Your task to perform on an android device: Open a new incognito window in Chrome Image 0: 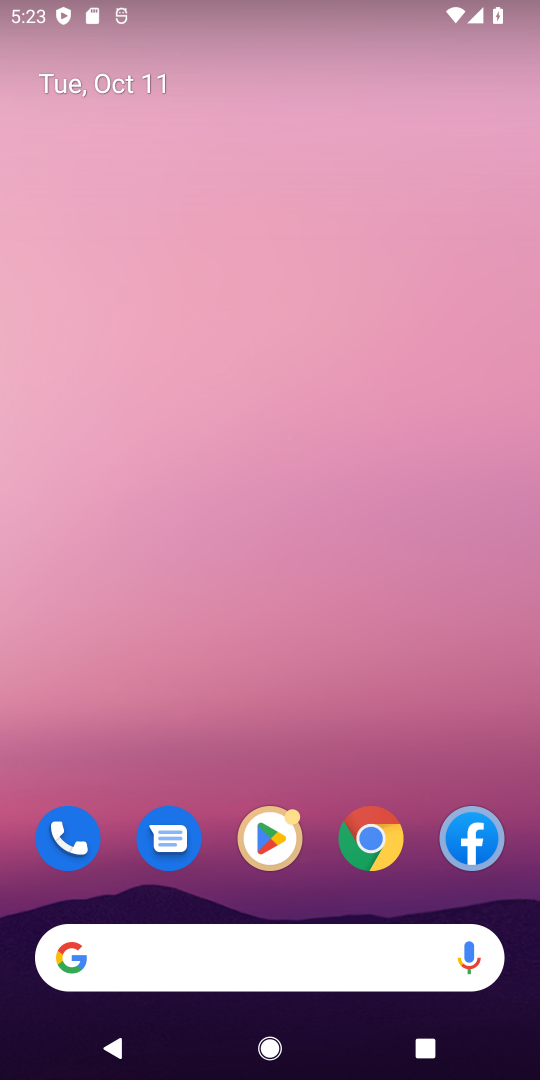
Step 0: click (375, 839)
Your task to perform on an android device: Open a new incognito window in Chrome Image 1: 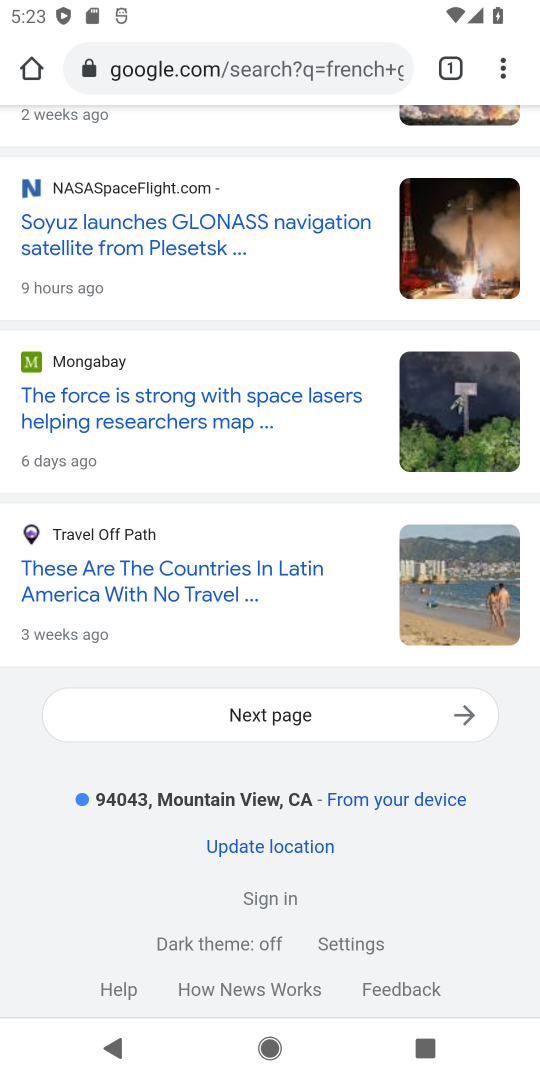
Step 1: click (503, 69)
Your task to perform on an android device: Open a new incognito window in Chrome Image 2: 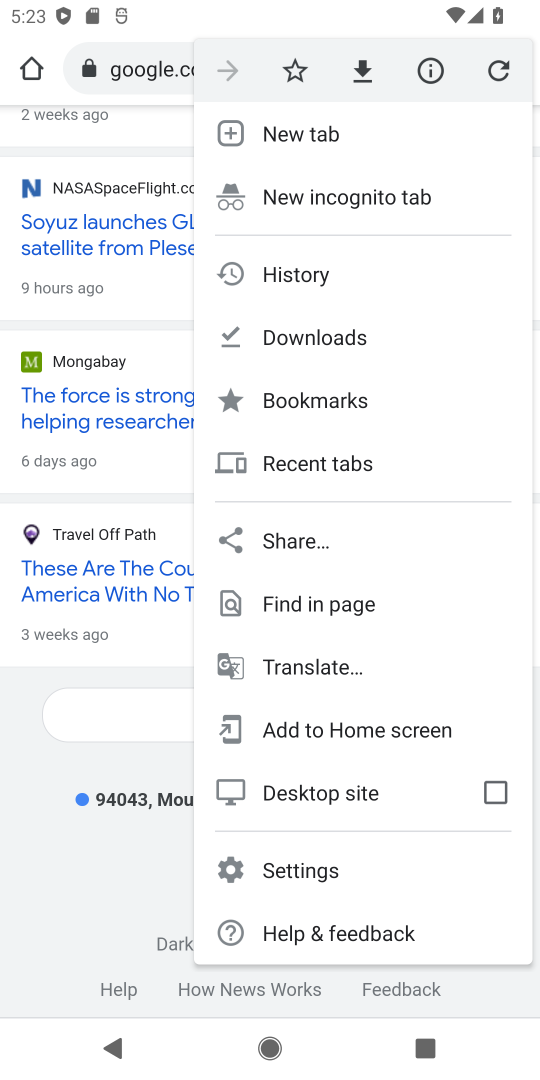
Step 2: click (380, 199)
Your task to perform on an android device: Open a new incognito window in Chrome Image 3: 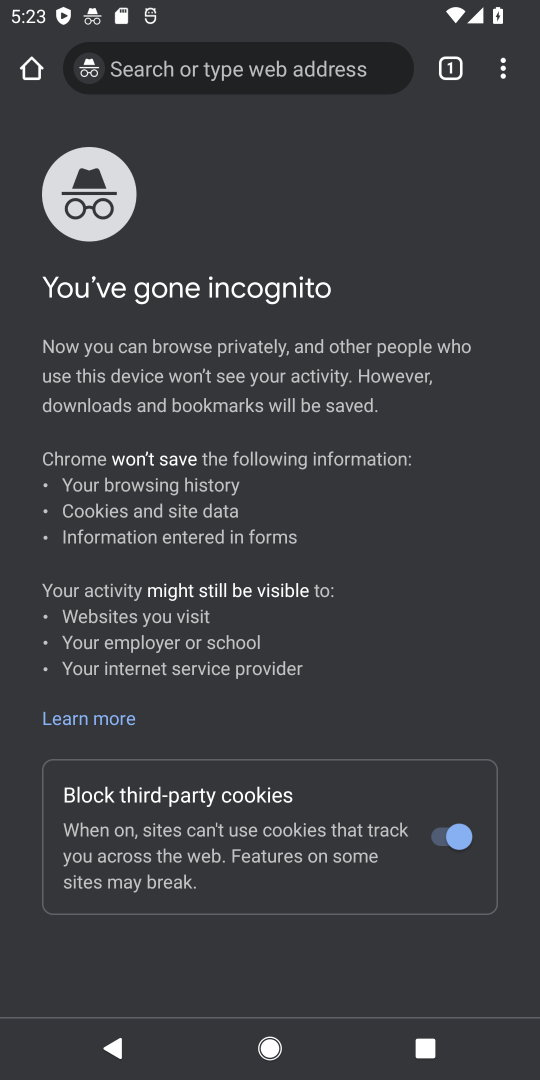
Step 3: task complete